Your task to perform on an android device: Turn off the flashlight Image 0: 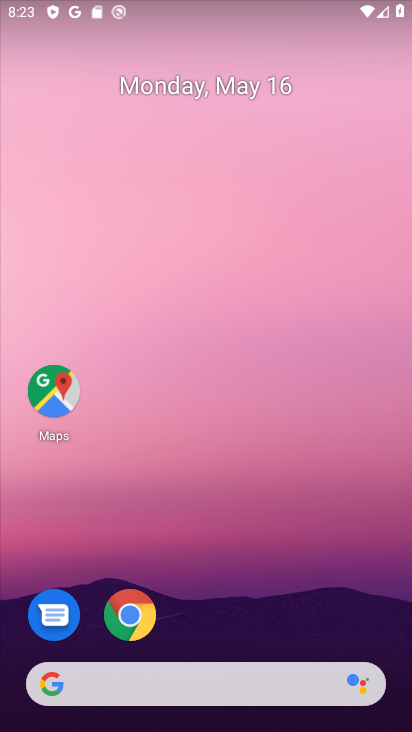
Step 0: drag from (16, 650) to (224, 313)
Your task to perform on an android device: Turn off the flashlight Image 1: 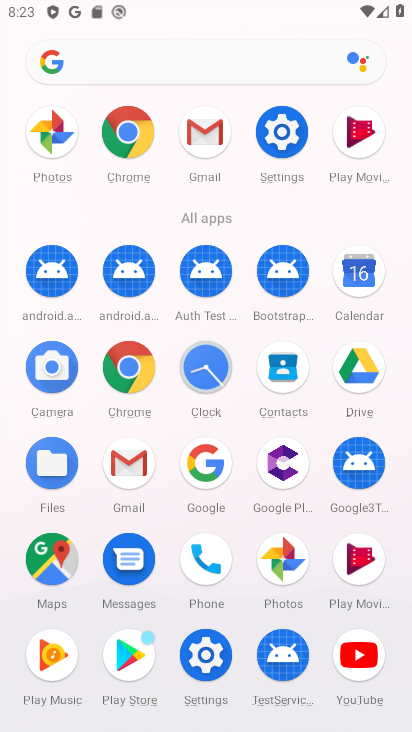
Step 1: click (279, 119)
Your task to perform on an android device: Turn off the flashlight Image 2: 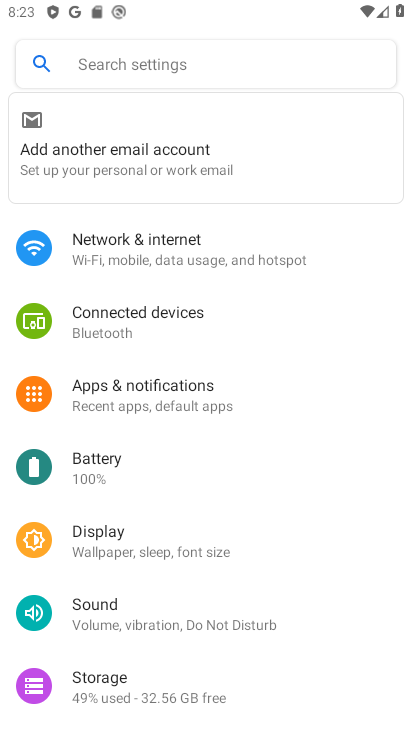
Step 2: click (186, 542)
Your task to perform on an android device: Turn off the flashlight Image 3: 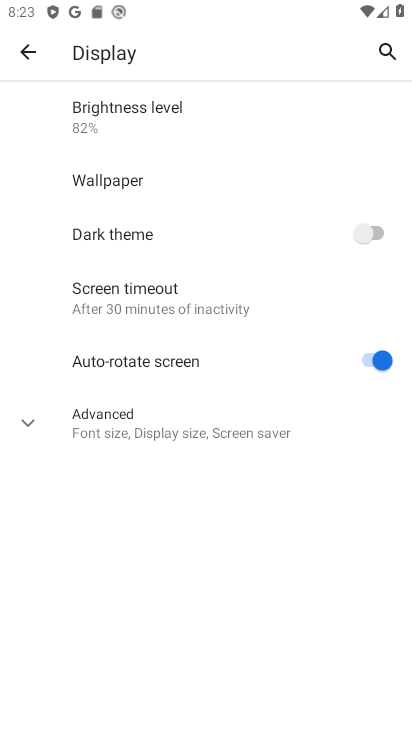
Step 3: task complete